Your task to perform on an android device: toggle show notifications on the lock screen Image 0: 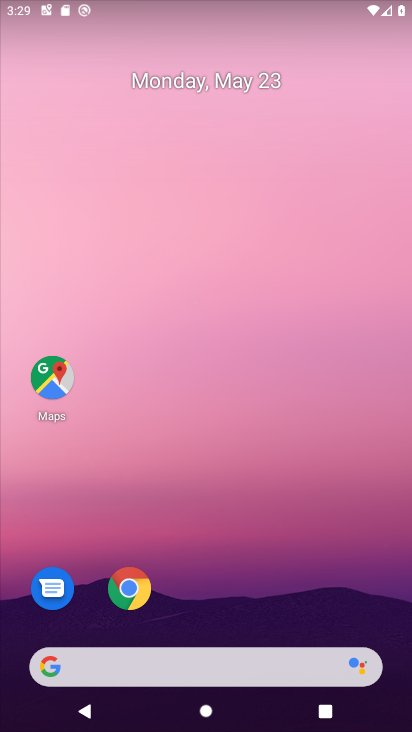
Step 0: drag from (181, 616) to (233, 178)
Your task to perform on an android device: toggle show notifications on the lock screen Image 1: 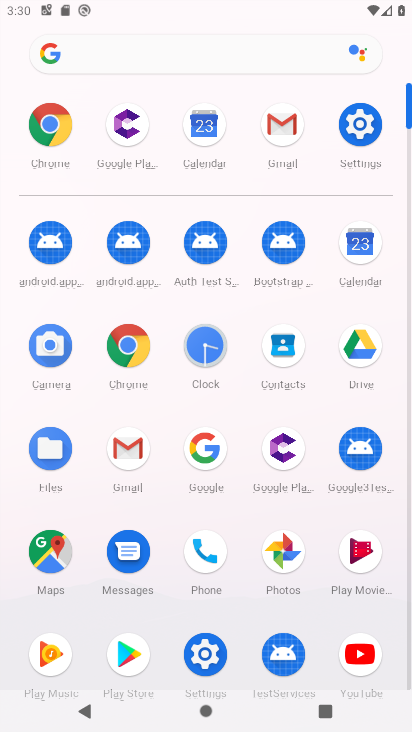
Step 1: click (347, 139)
Your task to perform on an android device: toggle show notifications on the lock screen Image 2: 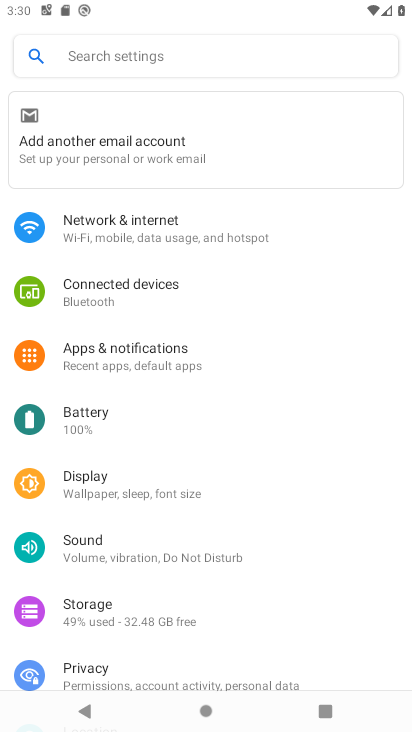
Step 2: click (128, 348)
Your task to perform on an android device: toggle show notifications on the lock screen Image 3: 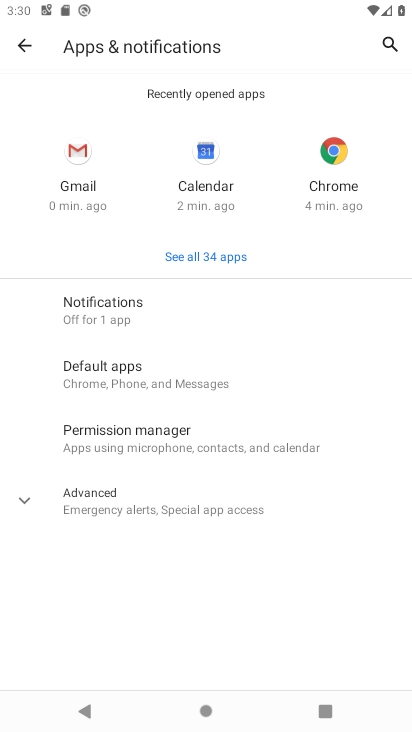
Step 3: click (194, 296)
Your task to perform on an android device: toggle show notifications on the lock screen Image 4: 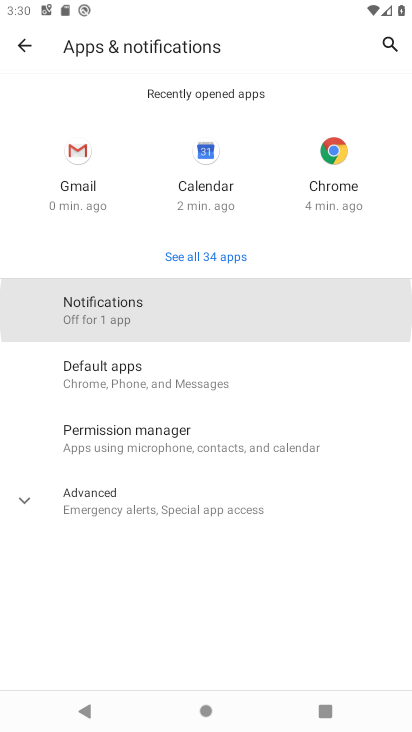
Step 4: click (194, 296)
Your task to perform on an android device: toggle show notifications on the lock screen Image 5: 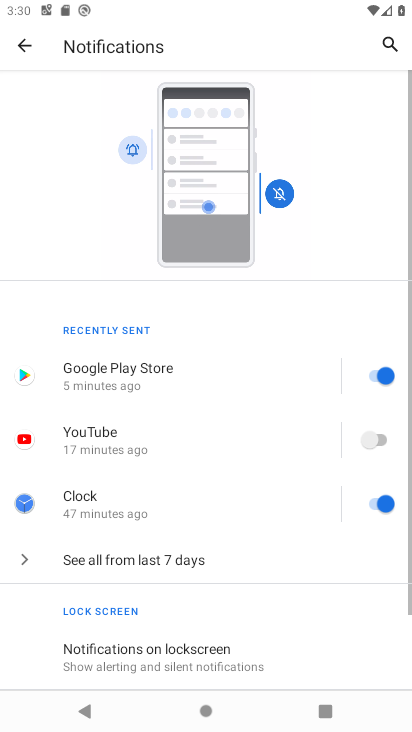
Step 5: drag from (180, 542) to (283, 118)
Your task to perform on an android device: toggle show notifications on the lock screen Image 6: 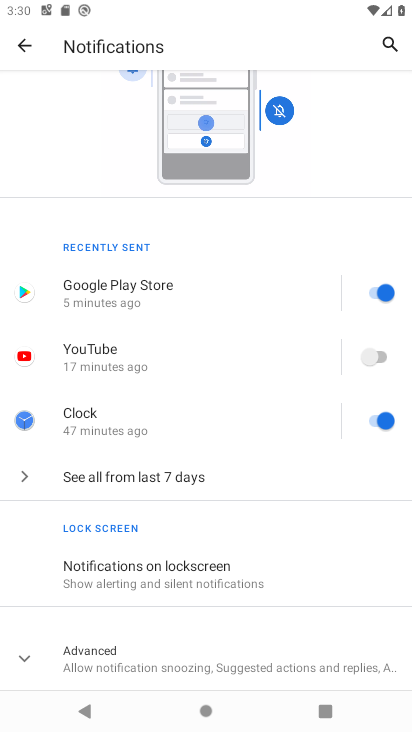
Step 6: click (189, 577)
Your task to perform on an android device: toggle show notifications on the lock screen Image 7: 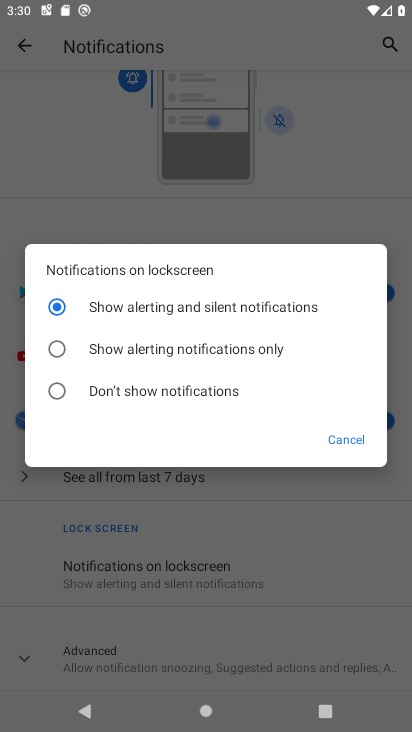
Step 7: click (117, 340)
Your task to perform on an android device: toggle show notifications on the lock screen Image 8: 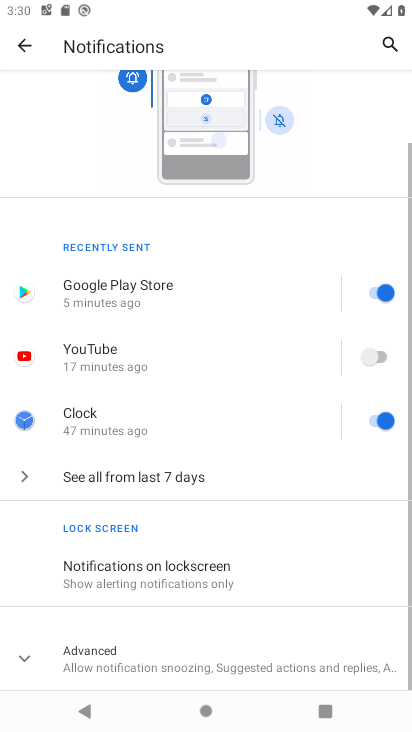
Step 8: task complete